Your task to perform on an android device: Search for seafood restaurants on Google Maps Image 0: 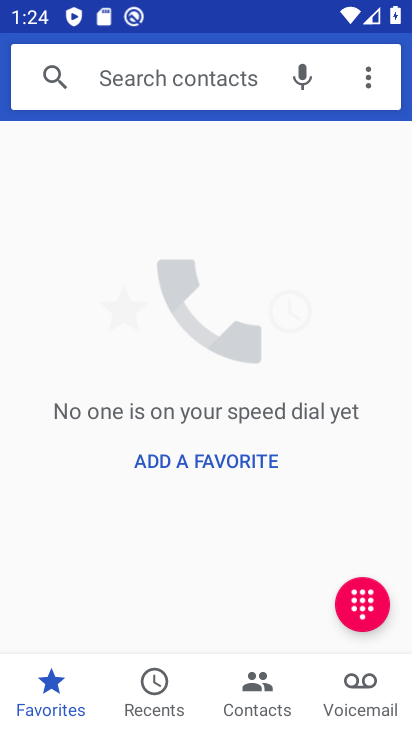
Step 0: press home button
Your task to perform on an android device: Search for seafood restaurants on Google Maps Image 1: 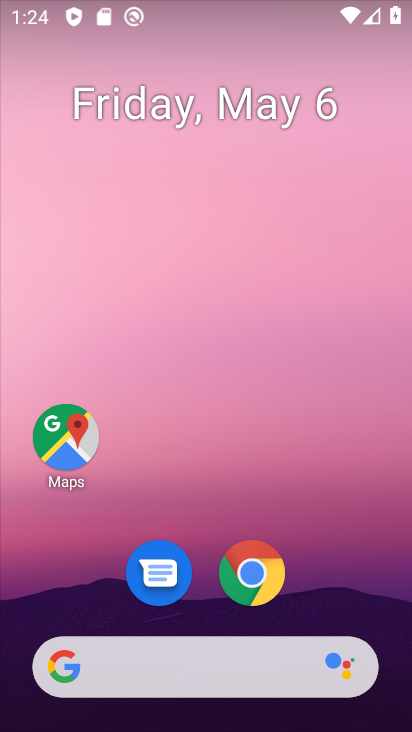
Step 1: click (61, 462)
Your task to perform on an android device: Search for seafood restaurants on Google Maps Image 2: 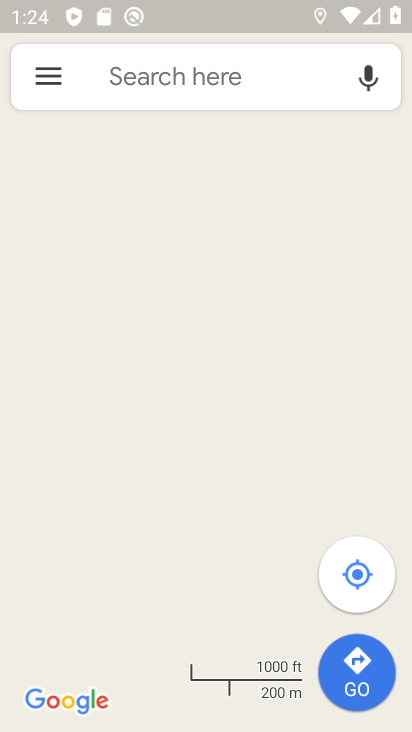
Step 2: click (209, 85)
Your task to perform on an android device: Search for seafood restaurants on Google Maps Image 3: 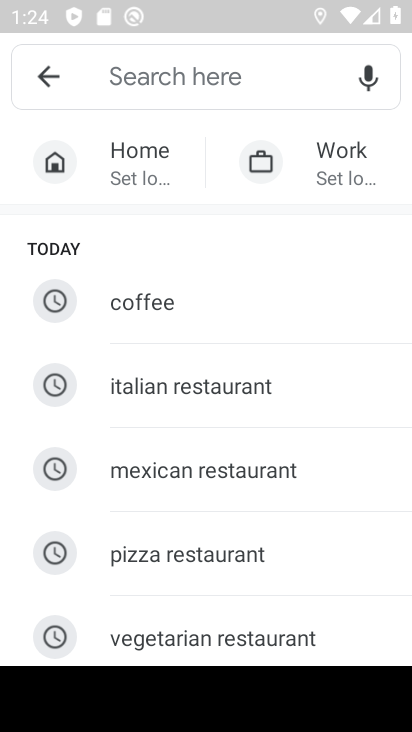
Step 3: type "seafood"
Your task to perform on an android device: Search for seafood restaurants on Google Maps Image 4: 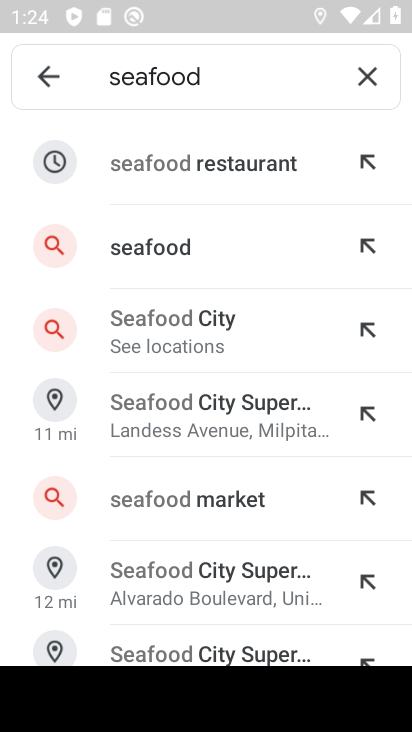
Step 4: click (209, 166)
Your task to perform on an android device: Search for seafood restaurants on Google Maps Image 5: 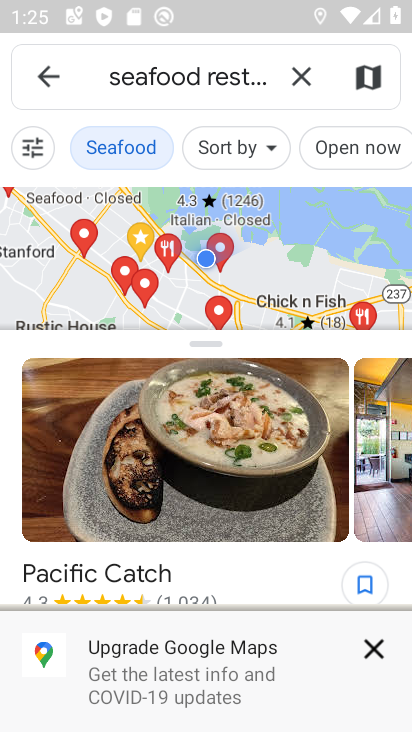
Step 5: task complete